Your task to perform on an android device: set default search engine in the chrome app Image 0: 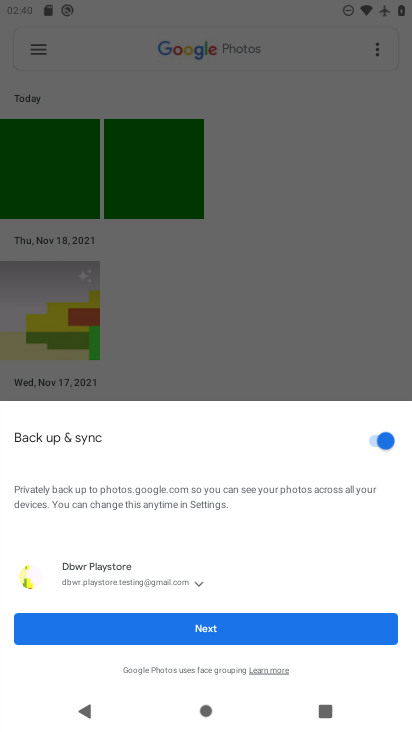
Step 0: press home button
Your task to perform on an android device: set default search engine in the chrome app Image 1: 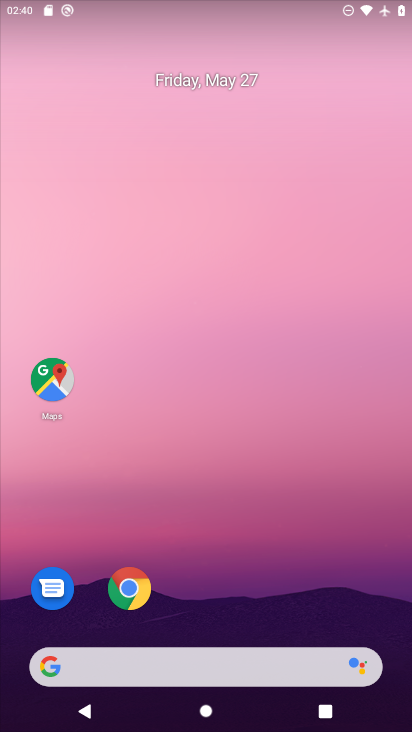
Step 1: click (127, 589)
Your task to perform on an android device: set default search engine in the chrome app Image 2: 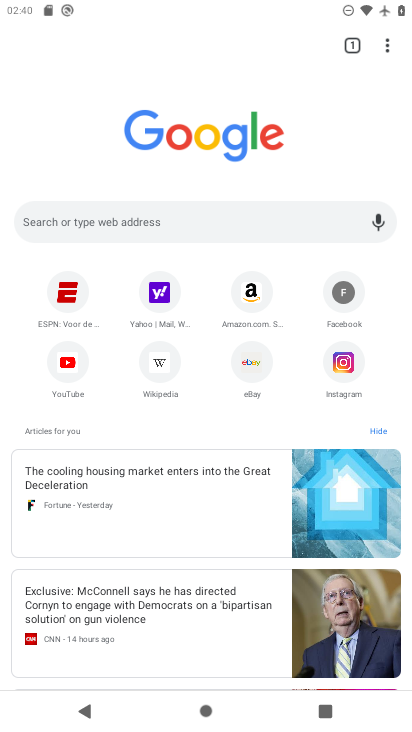
Step 2: click (388, 53)
Your task to perform on an android device: set default search engine in the chrome app Image 3: 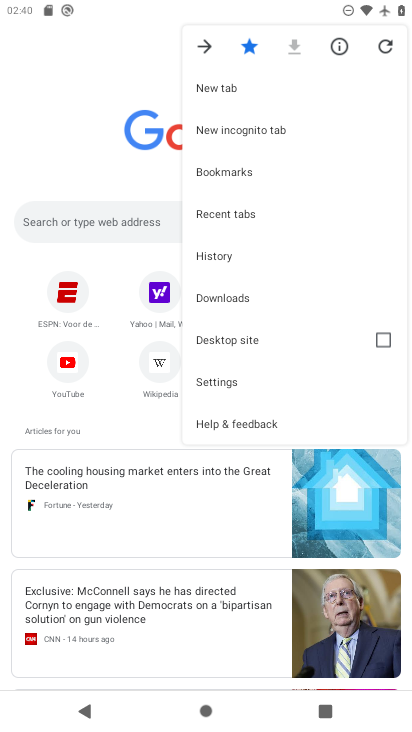
Step 3: click (218, 380)
Your task to perform on an android device: set default search engine in the chrome app Image 4: 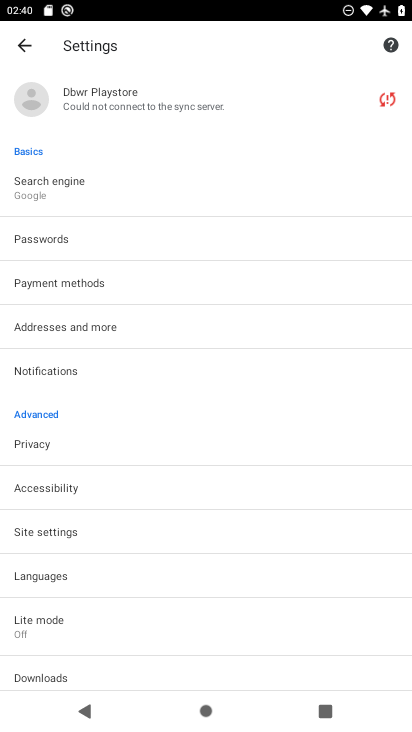
Step 4: click (44, 183)
Your task to perform on an android device: set default search engine in the chrome app Image 5: 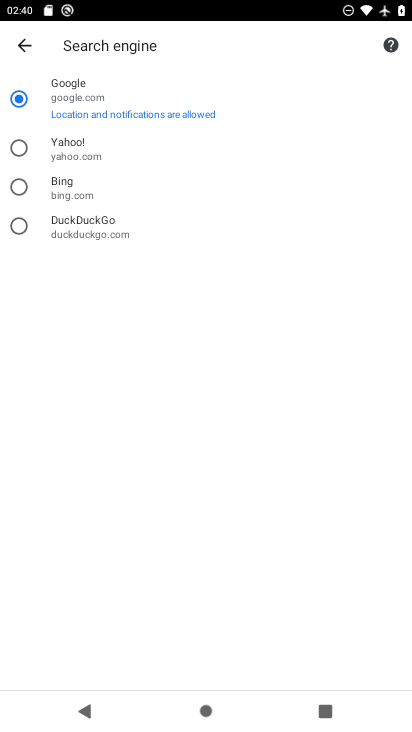
Step 5: click (19, 143)
Your task to perform on an android device: set default search engine in the chrome app Image 6: 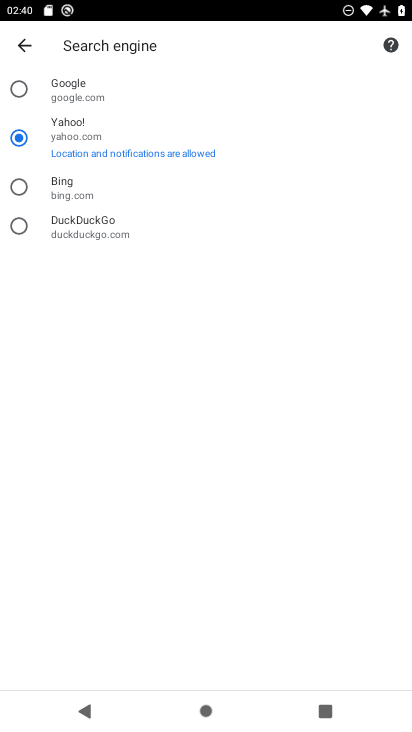
Step 6: task complete